Your task to perform on an android device: toggle priority inbox in the gmail app Image 0: 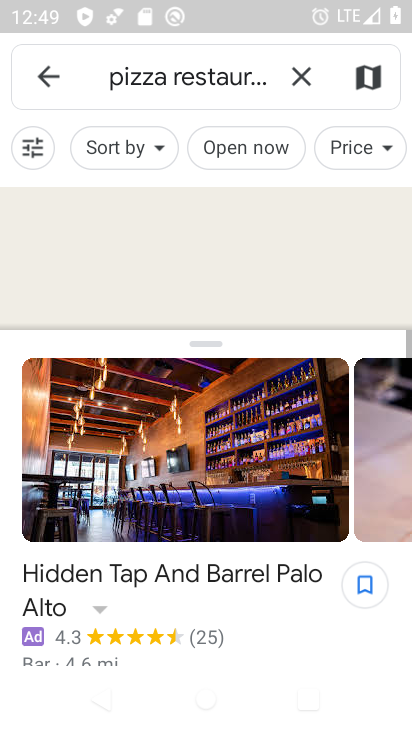
Step 0: press home button
Your task to perform on an android device: toggle priority inbox in the gmail app Image 1: 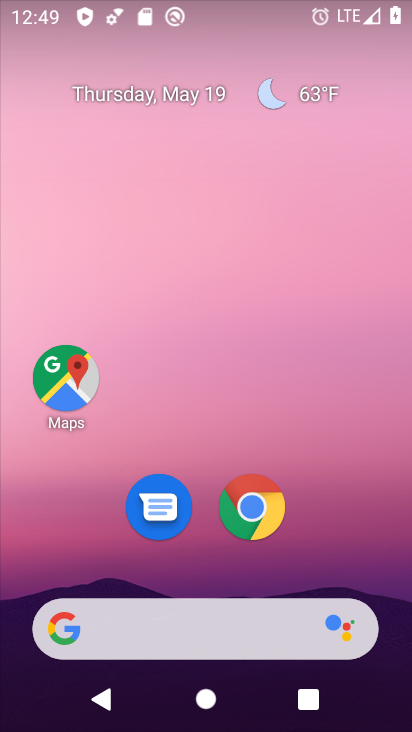
Step 1: drag from (203, 572) to (205, 300)
Your task to perform on an android device: toggle priority inbox in the gmail app Image 2: 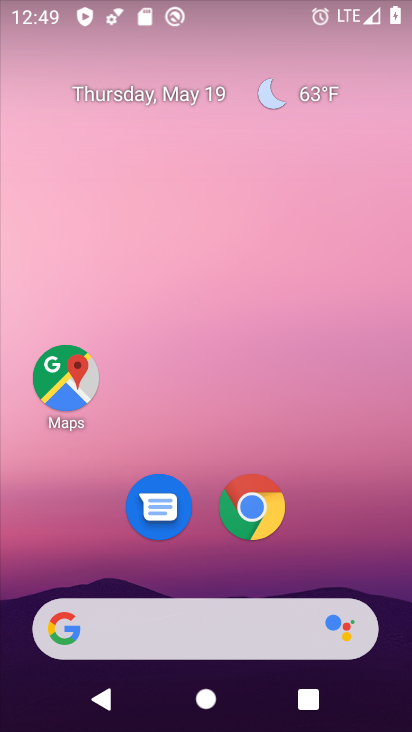
Step 2: drag from (182, 591) to (186, 169)
Your task to perform on an android device: toggle priority inbox in the gmail app Image 3: 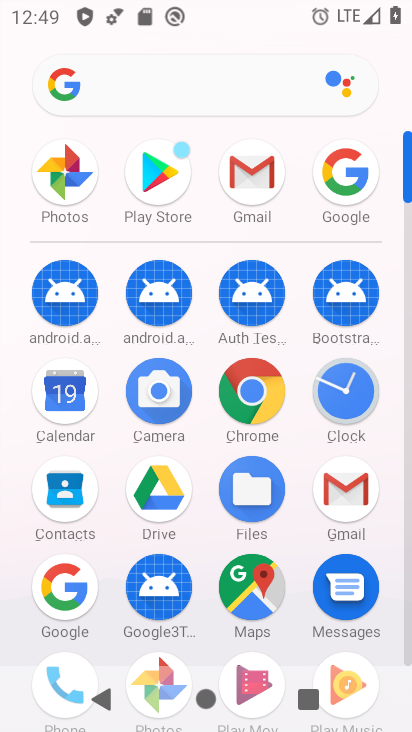
Step 3: click (338, 490)
Your task to perform on an android device: toggle priority inbox in the gmail app Image 4: 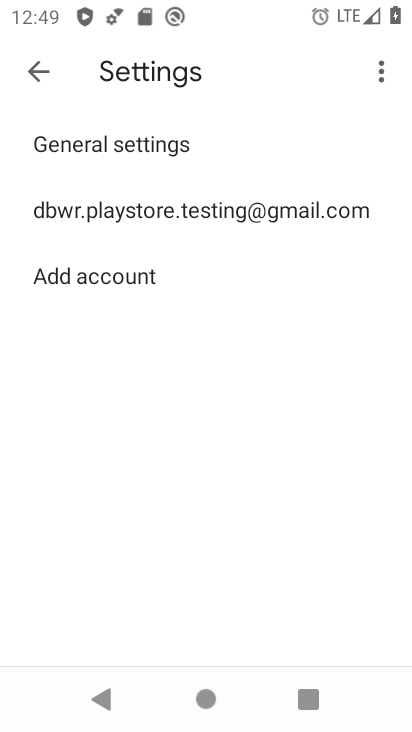
Step 4: click (77, 210)
Your task to perform on an android device: toggle priority inbox in the gmail app Image 5: 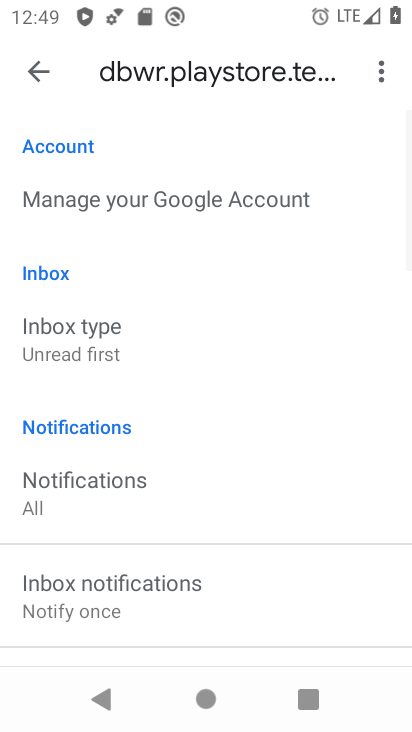
Step 5: click (106, 340)
Your task to perform on an android device: toggle priority inbox in the gmail app Image 6: 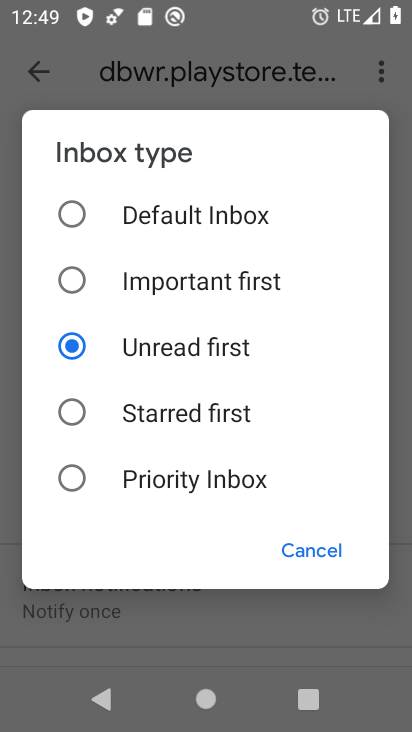
Step 6: click (118, 469)
Your task to perform on an android device: toggle priority inbox in the gmail app Image 7: 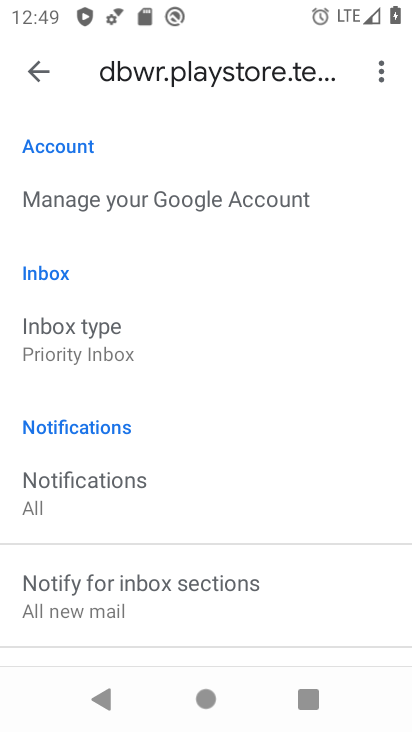
Step 7: task complete